Your task to perform on an android device: set default search engine in the chrome app Image 0: 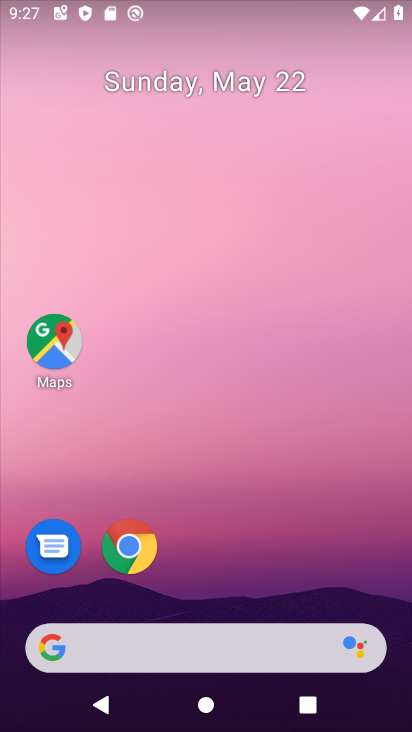
Step 0: drag from (206, 512) to (255, 56)
Your task to perform on an android device: set default search engine in the chrome app Image 1: 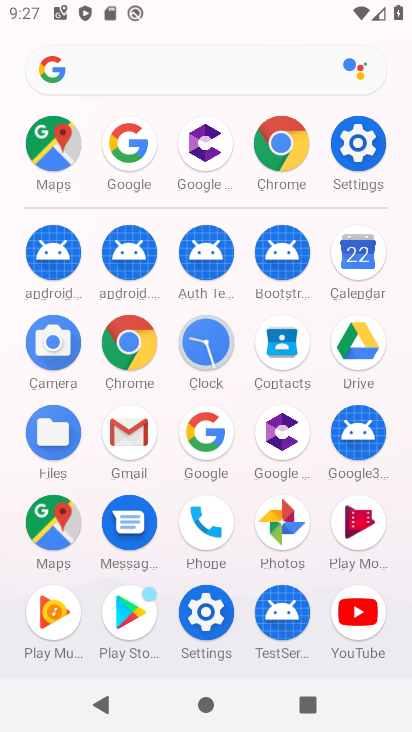
Step 1: click (274, 138)
Your task to perform on an android device: set default search engine in the chrome app Image 2: 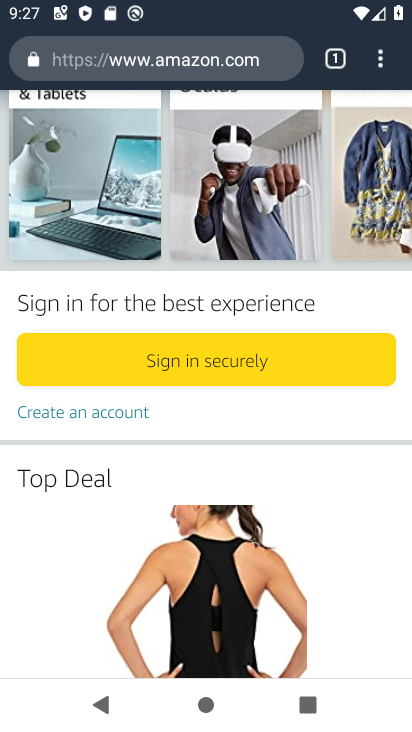
Step 2: click (376, 56)
Your task to perform on an android device: set default search engine in the chrome app Image 3: 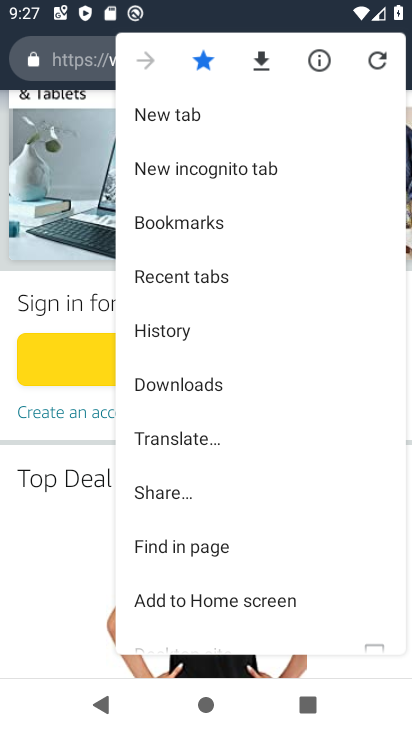
Step 3: drag from (206, 577) to (299, 81)
Your task to perform on an android device: set default search engine in the chrome app Image 4: 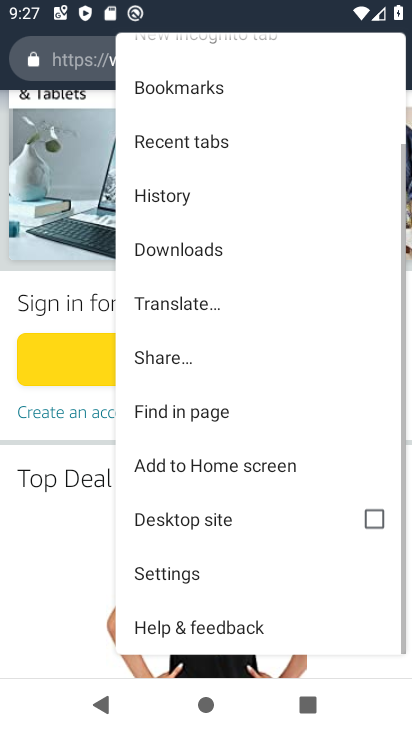
Step 4: click (176, 558)
Your task to perform on an android device: set default search engine in the chrome app Image 5: 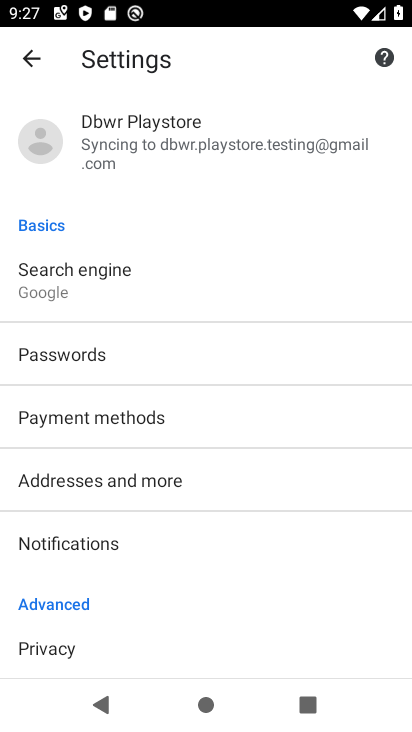
Step 5: drag from (238, 563) to (341, 141)
Your task to perform on an android device: set default search engine in the chrome app Image 6: 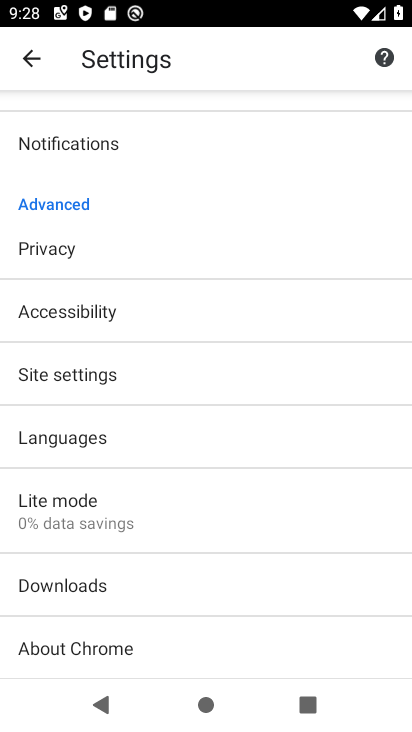
Step 6: drag from (156, 622) to (238, 713)
Your task to perform on an android device: set default search engine in the chrome app Image 7: 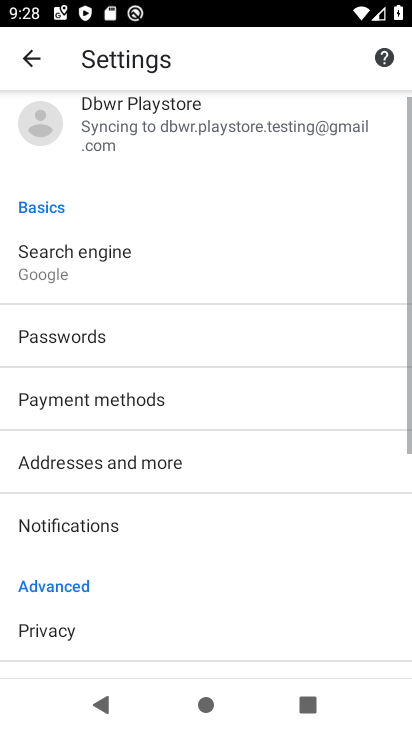
Step 7: drag from (236, 204) to (240, 527)
Your task to perform on an android device: set default search engine in the chrome app Image 8: 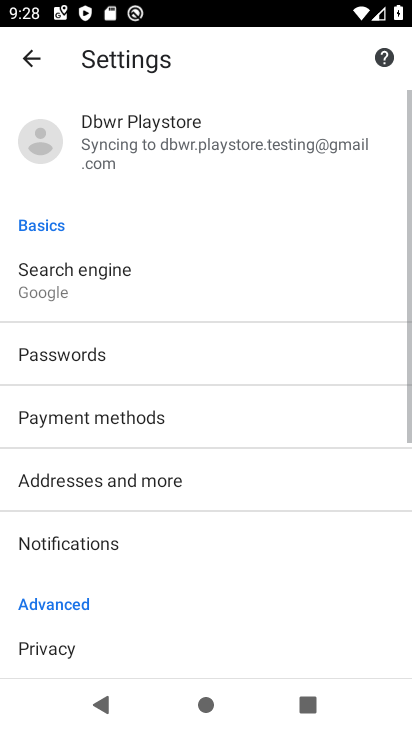
Step 8: click (93, 286)
Your task to perform on an android device: set default search engine in the chrome app Image 9: 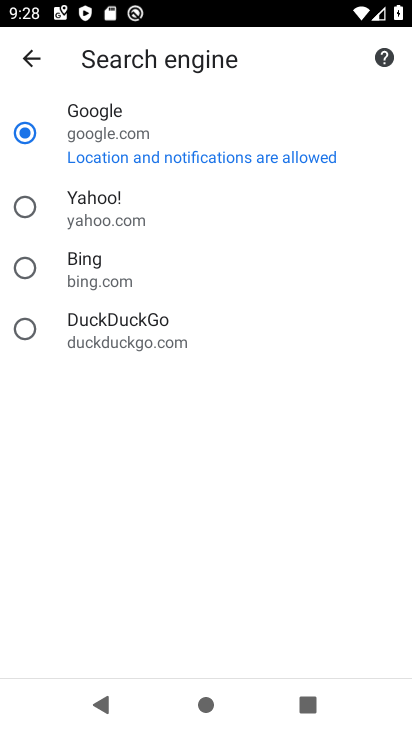
Step 9: task complete